Your task to perform on an android device: toggle improve location accuracy Image 0: 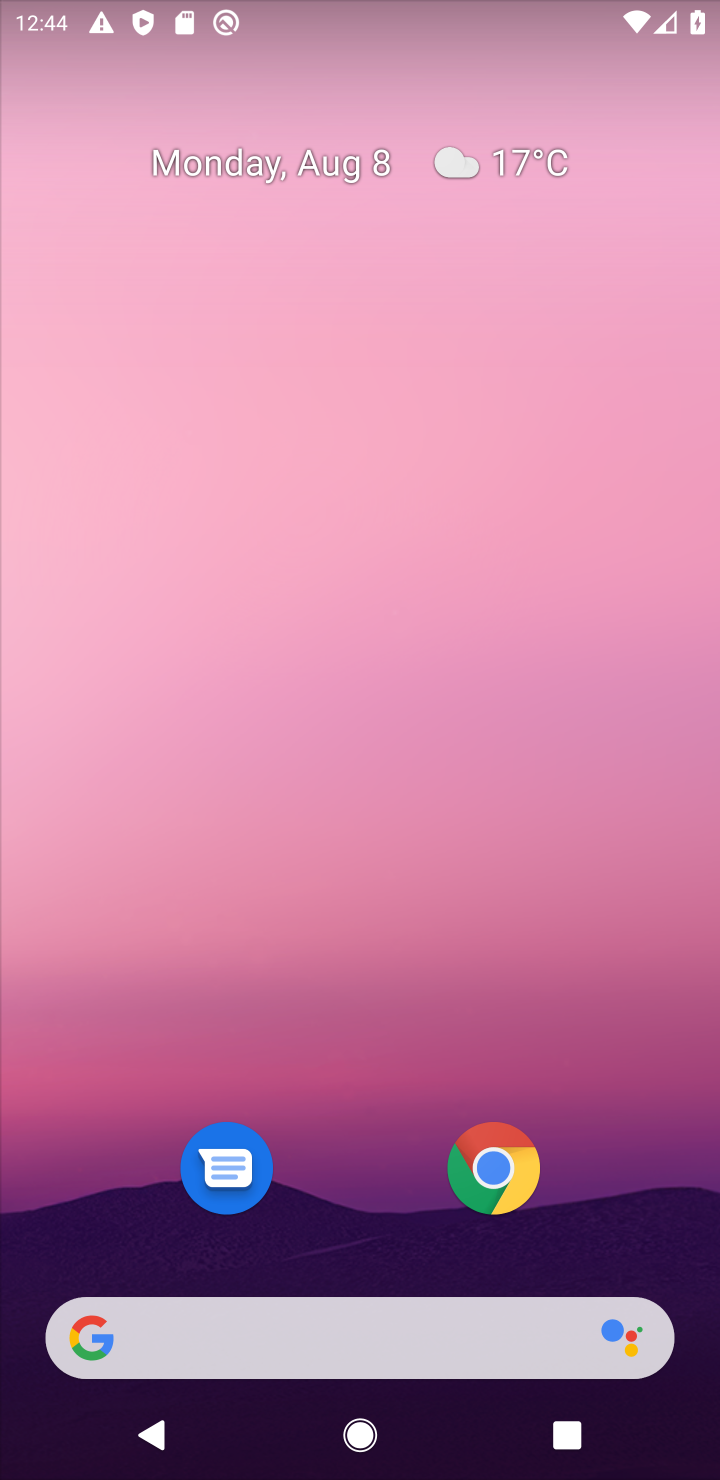
Step 0: drag from (65, 1417) to (663, 359)
Your task to perform on an android device: toggle improve location accuracy Image 1: 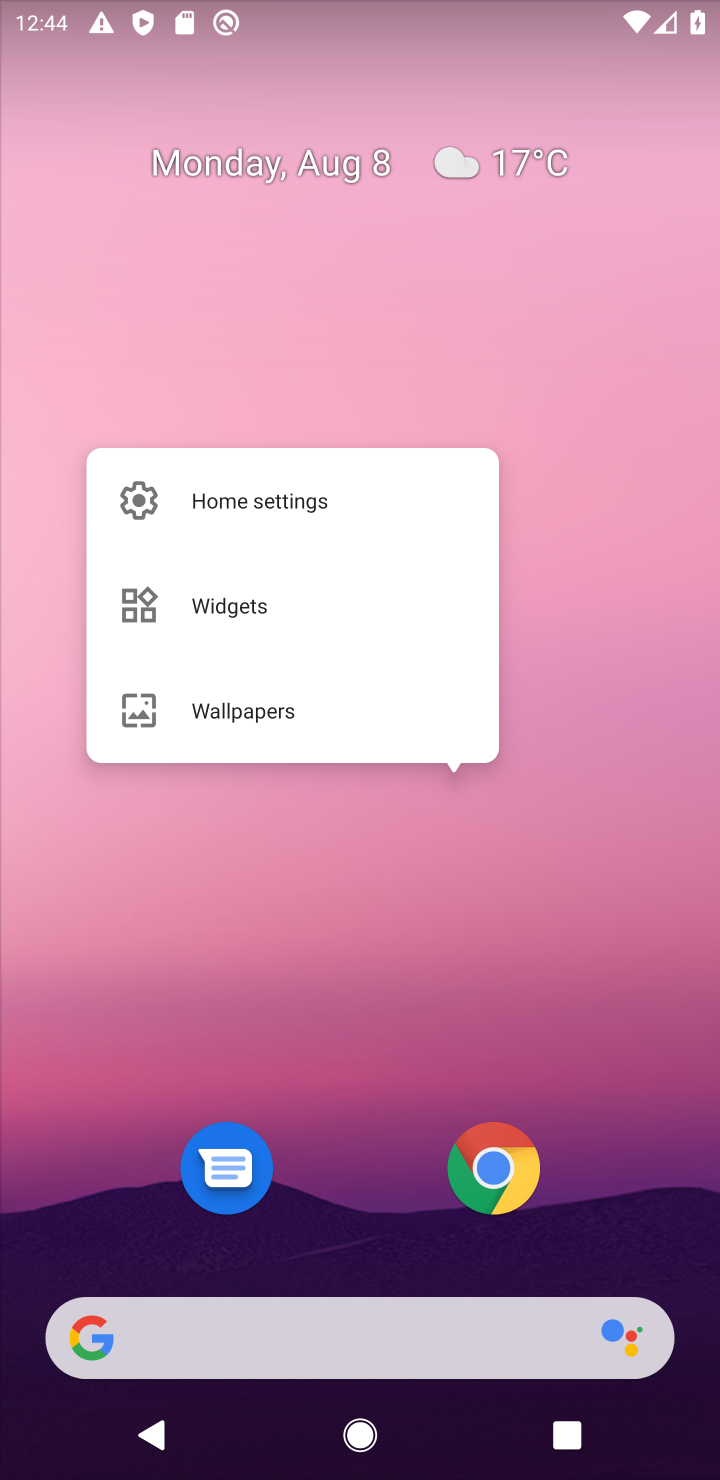
Step 1: task complete